Your task to perform on an android device: install app "ColorNote Notepad Notes" Image 0: 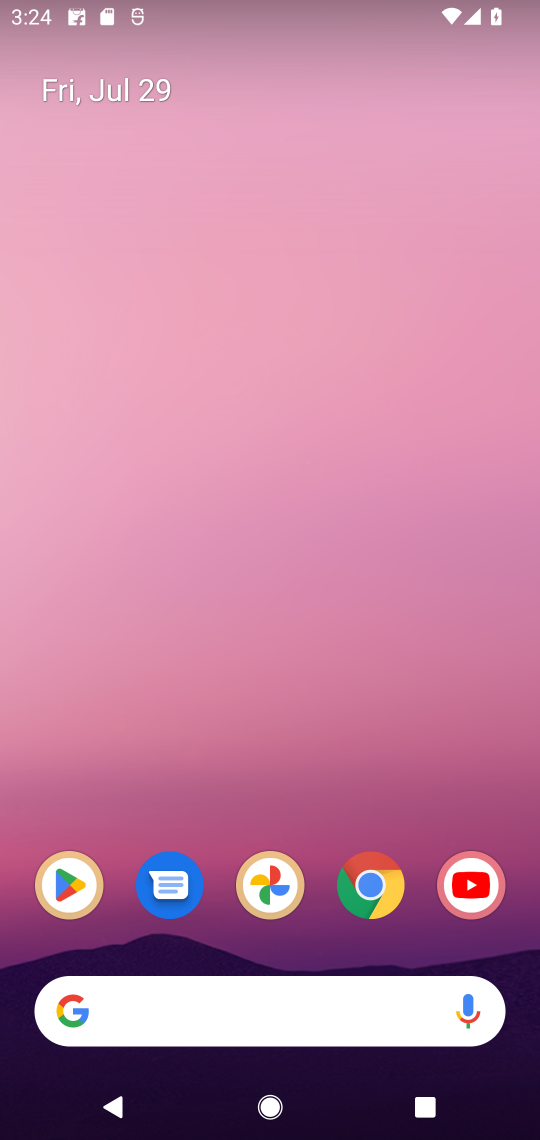
Step 0: click (56, 895)
Your task to perform on an android device: install app "ColorNote Notepad Notes" Image 1: 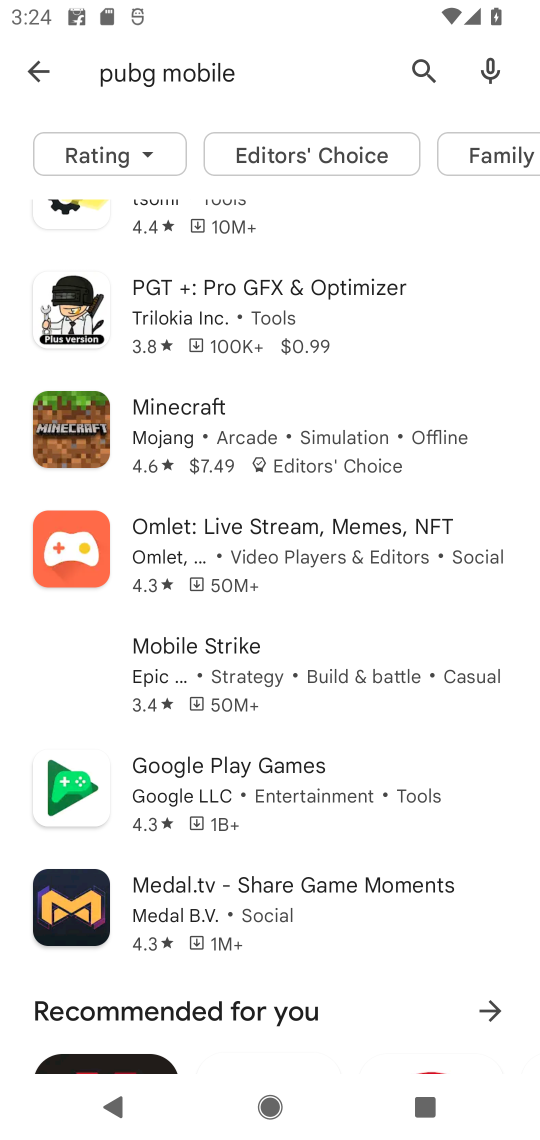
Step 1: click (417, 68)
Your task to perform on an android device: install app "ColorNote Notepad Notes" Image 2: 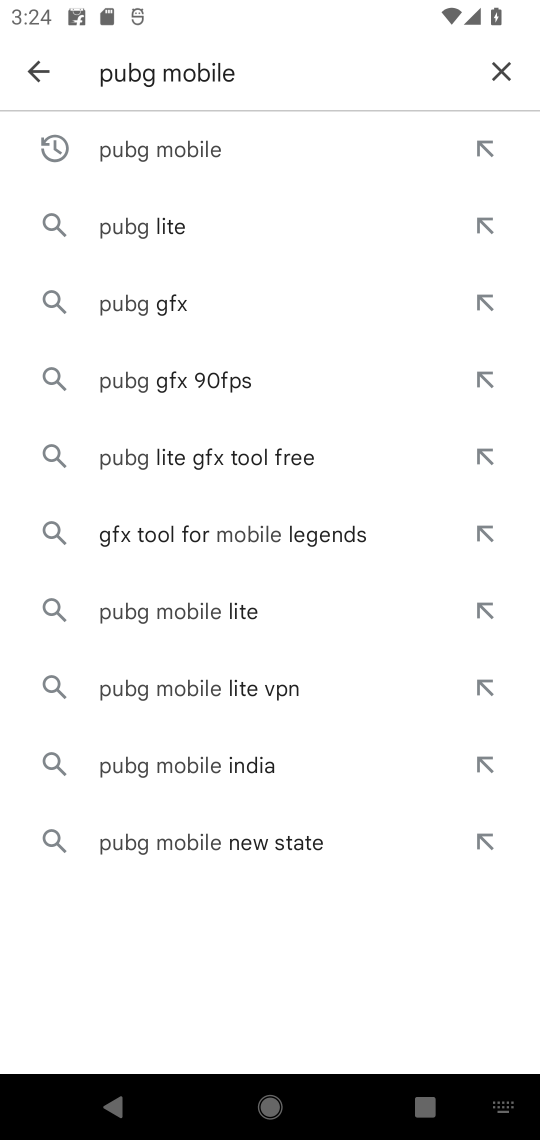
Step 2: click (503, 73)
Your task to perform on an android device: install app "ColorNote Notepad Notes" Image 3: 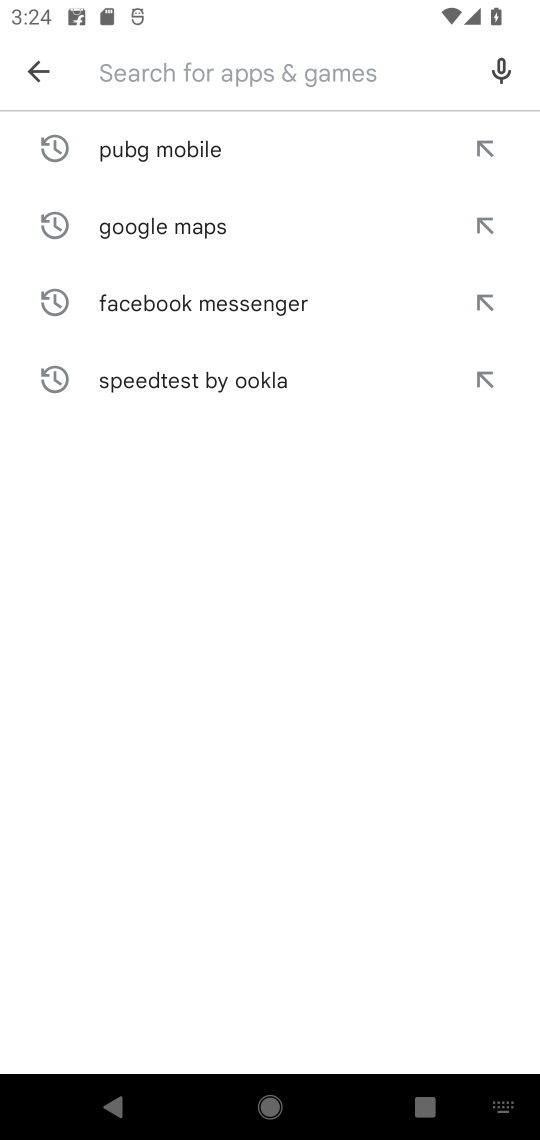
Step 3: type "ColorNote Notepad Notes"
Your task to perform on an android device: install app "ColorNote Notepad Notes" Image 4: 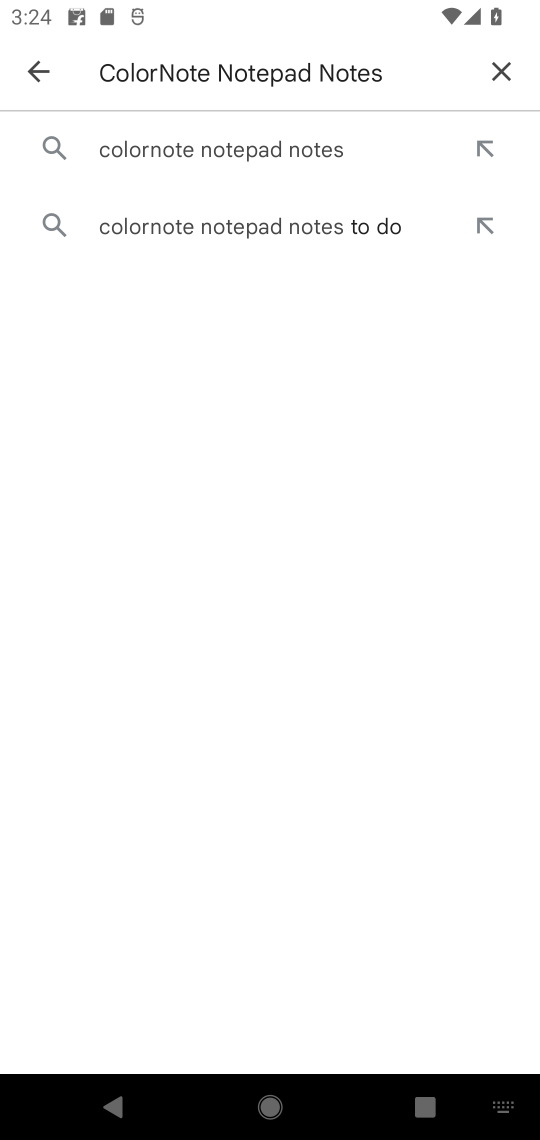
Step 4: click (233, 162)
Your task to perform on an android device: install app "ColorNote Notepad Notes" Image 5: 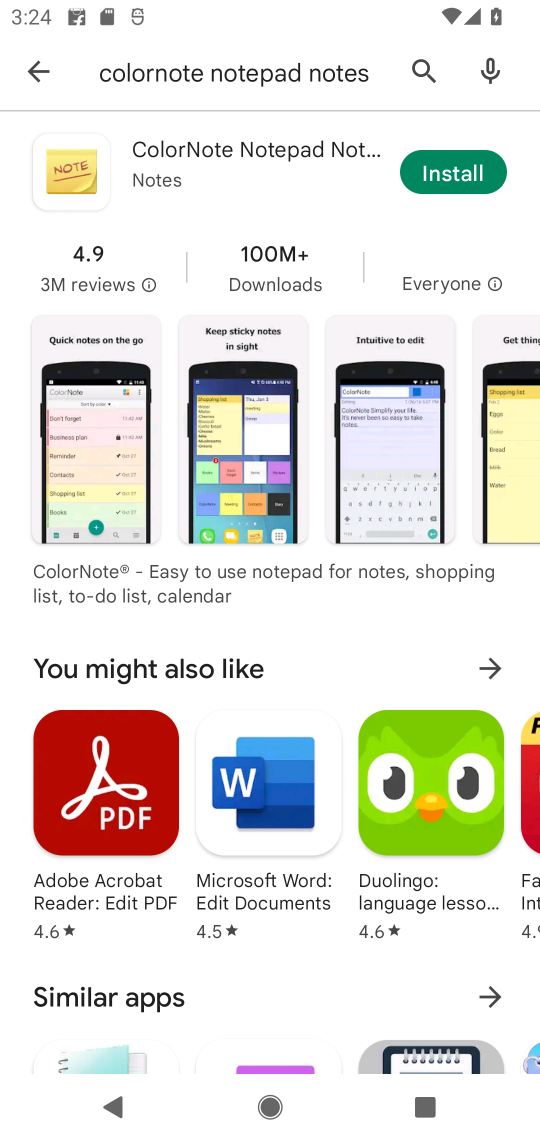
Step 5: click (464, 166)
Your task to perform on an android device: install app "ColorNote Notepad Notes" Image 6: 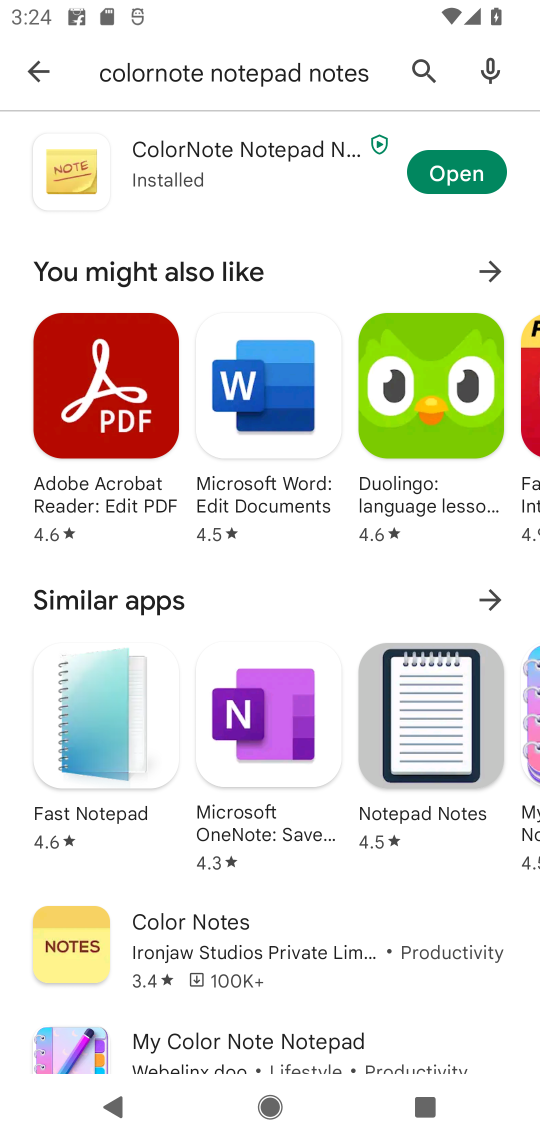
Step 6: task complete